Your task to perform on an android device: Show me popular videos on Youtube Image 0: 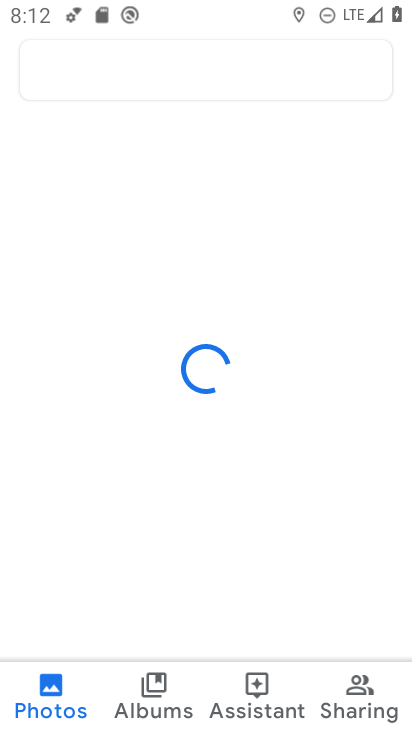
Step 0: press home button
Your task to perform on an android device: Show me popular videos on Youtube Image 1: 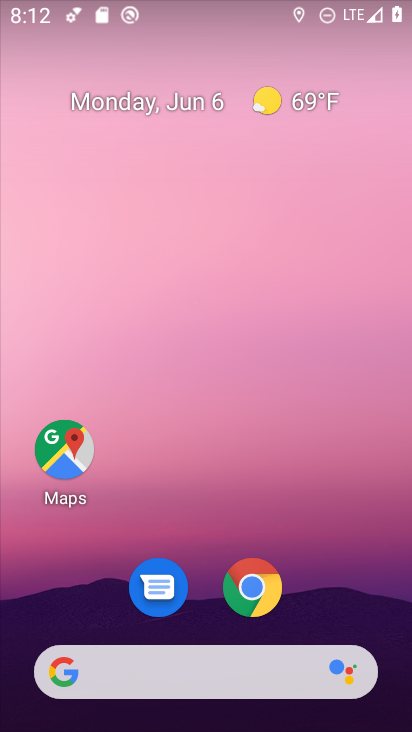
Step 1: drag from (342, 565) to (308, 160)
Your task to perform on an android device: Show me popular videos on Youtube Image 2: 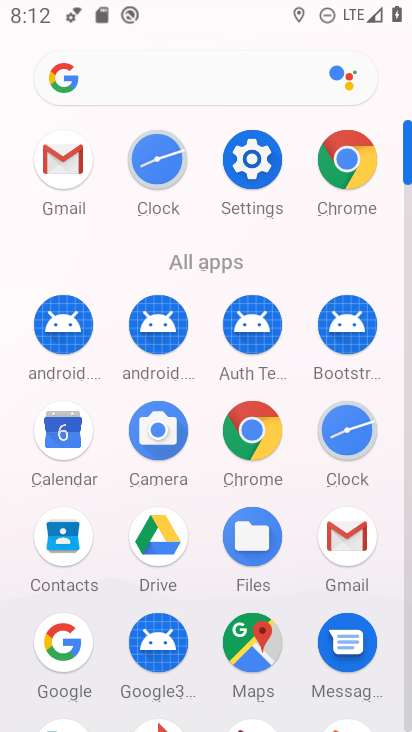
Step 2: drag from (207, 557) to (268, 220)
Your task to perform on an android device: Show me popular videos on Youtube Image 3: 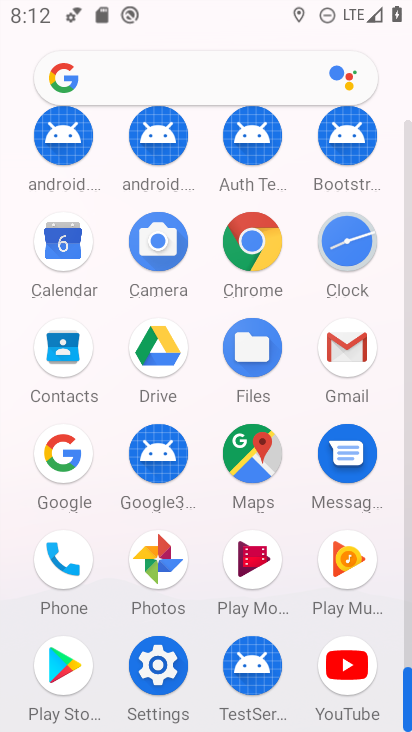
Step 3: click (344, 660)
Your task to perform on an android device: Show me popular videos on Youtube Image 4: 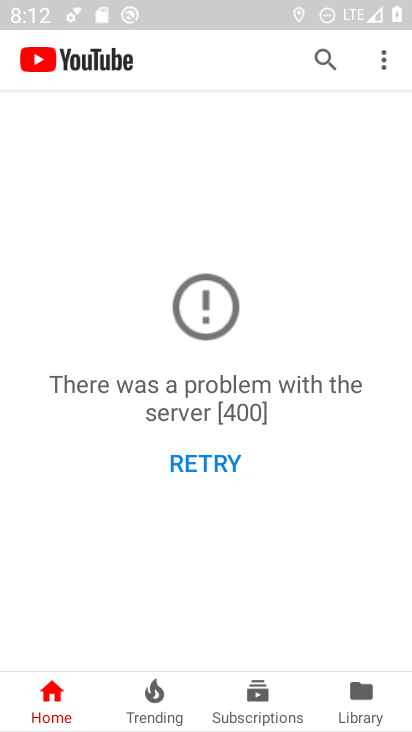
Step 4: click (200, 469)
Your task to perform on an android device: Show me popular videos on Youtube Image 5: 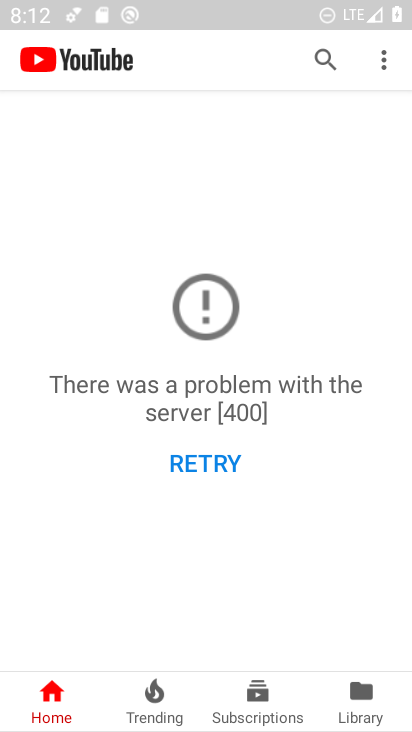
Step 5: task complete